Your task to perform on an android device: move a message to another label in the gmail app Image 0: 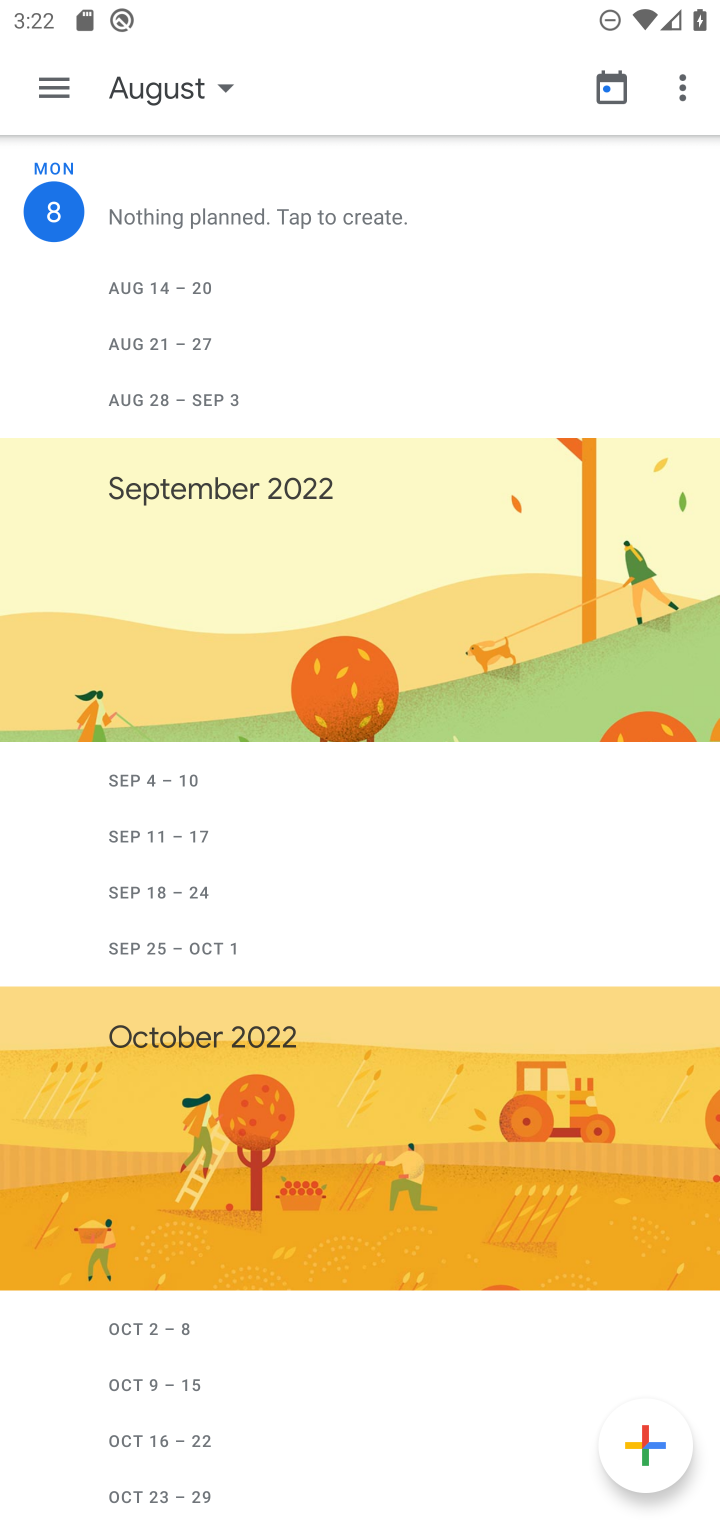
Step 0: press home button
Your task to perform on an android device: move a message to another label in the gmail app Image 1: 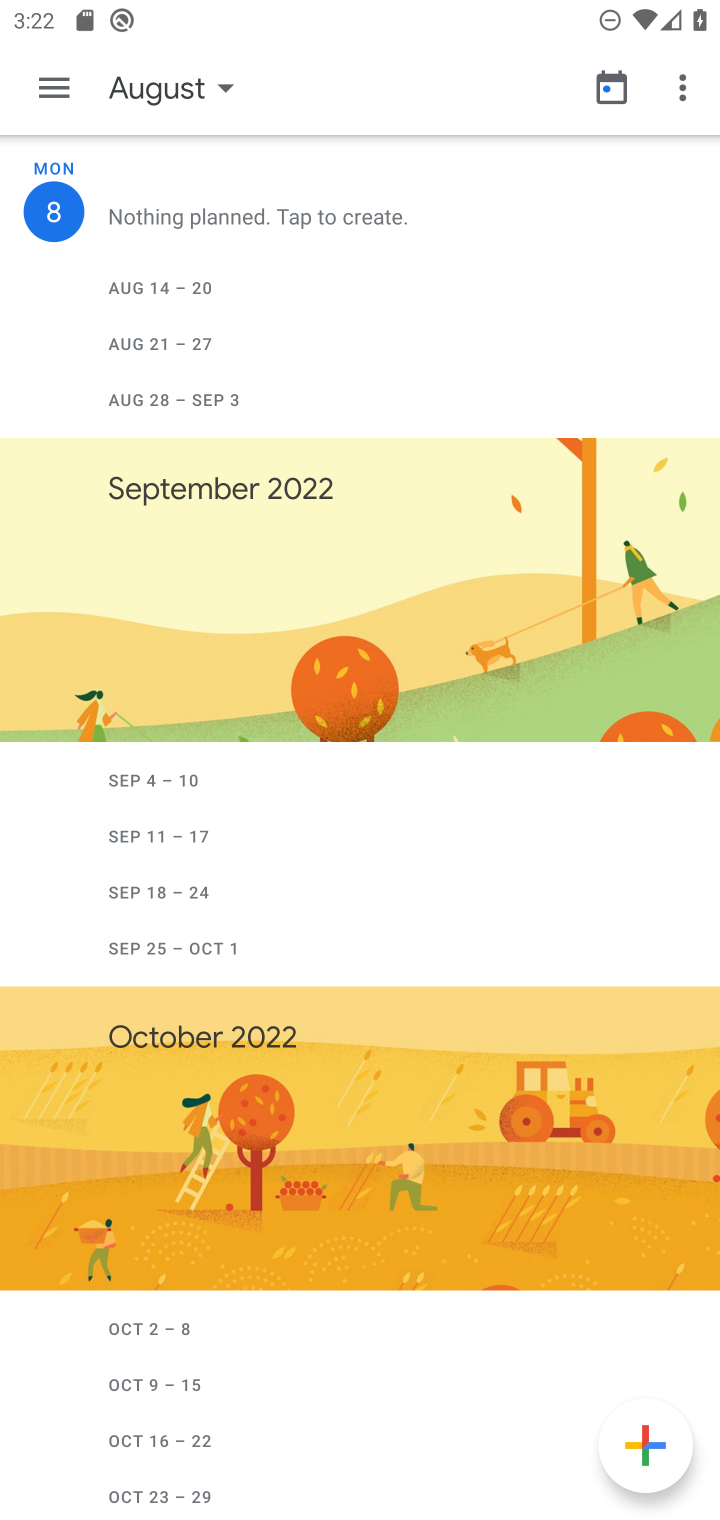
Step 1: press home button
Your task to perform on an android device: move a message to another label in the gmail app Image 2: 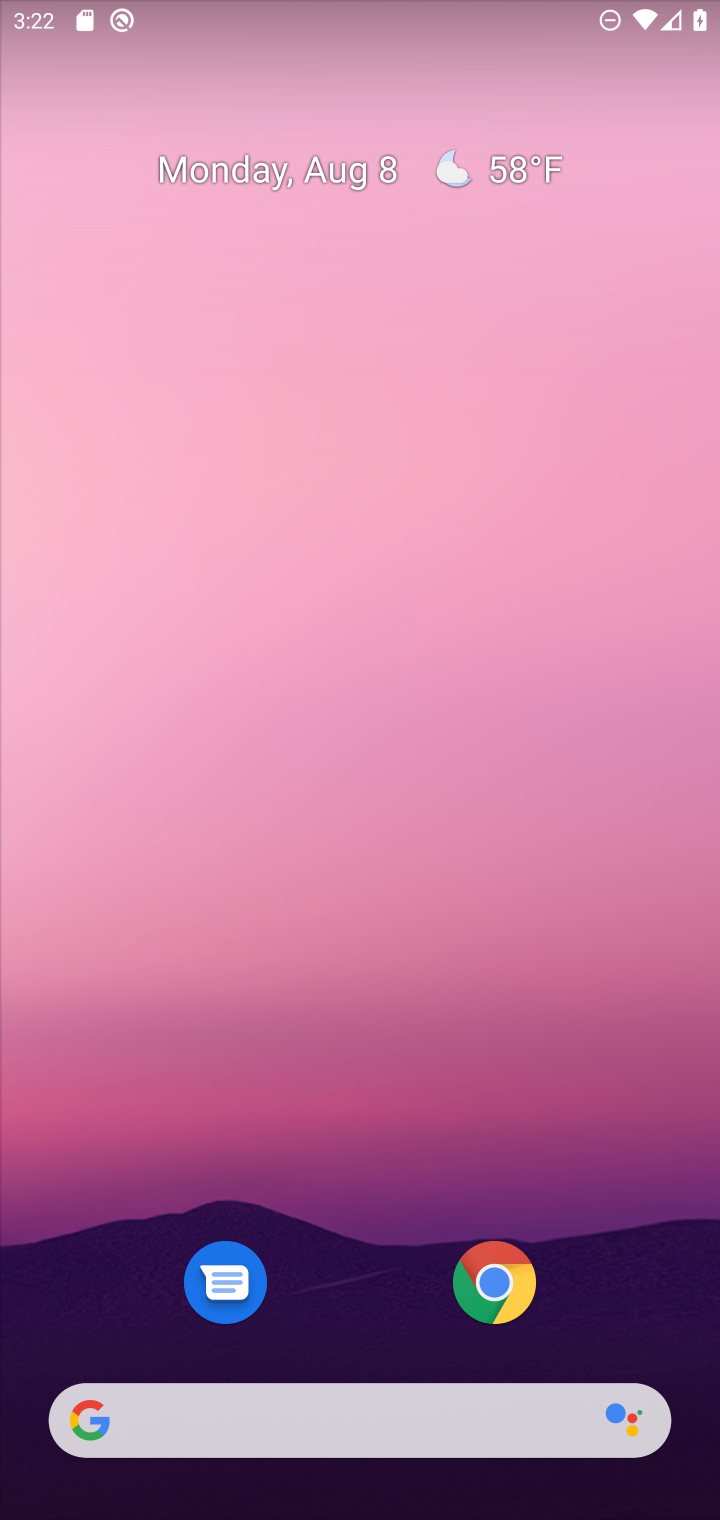
Step 2: drag from (397, 1054) to (570, 468)
Your task to perform on an android device: move a message to another label in the gmail app Image 3: 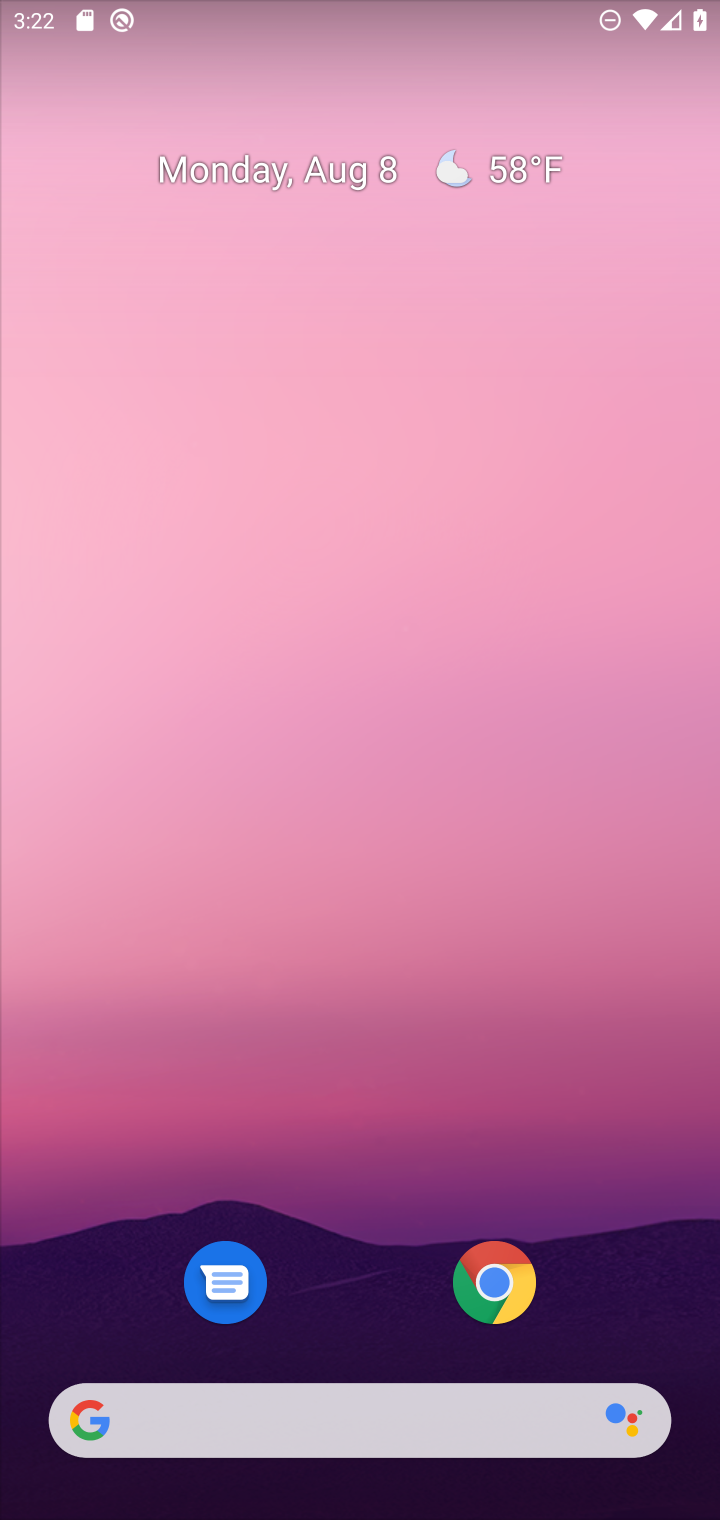
Step 3: drag from (372, 1242) to (515, 245)
Your task to perform on an android device: move a message to another label in the gmail app Image 4: 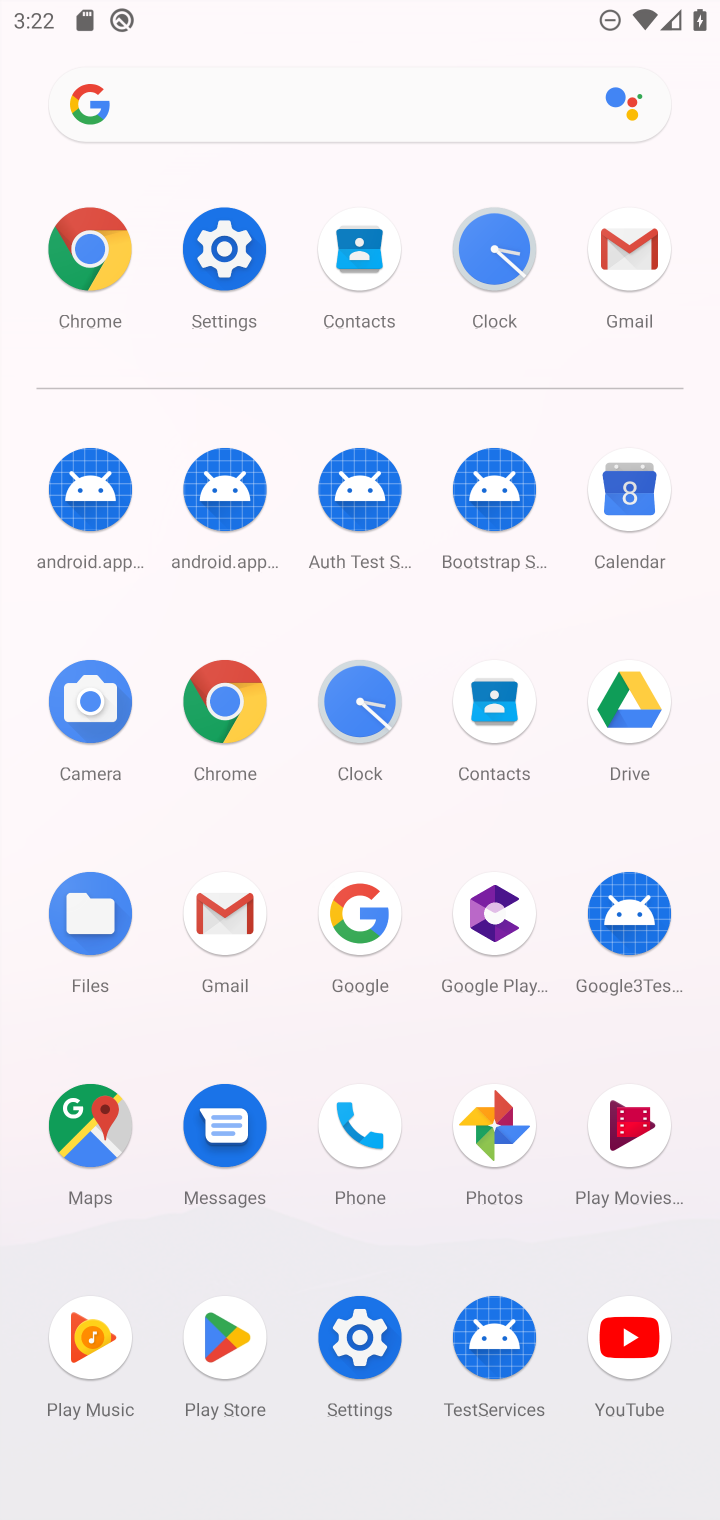
Step 4: click (231, 895)
Your task to perform on an android device: move a message to another label in the gmail app Image 5: 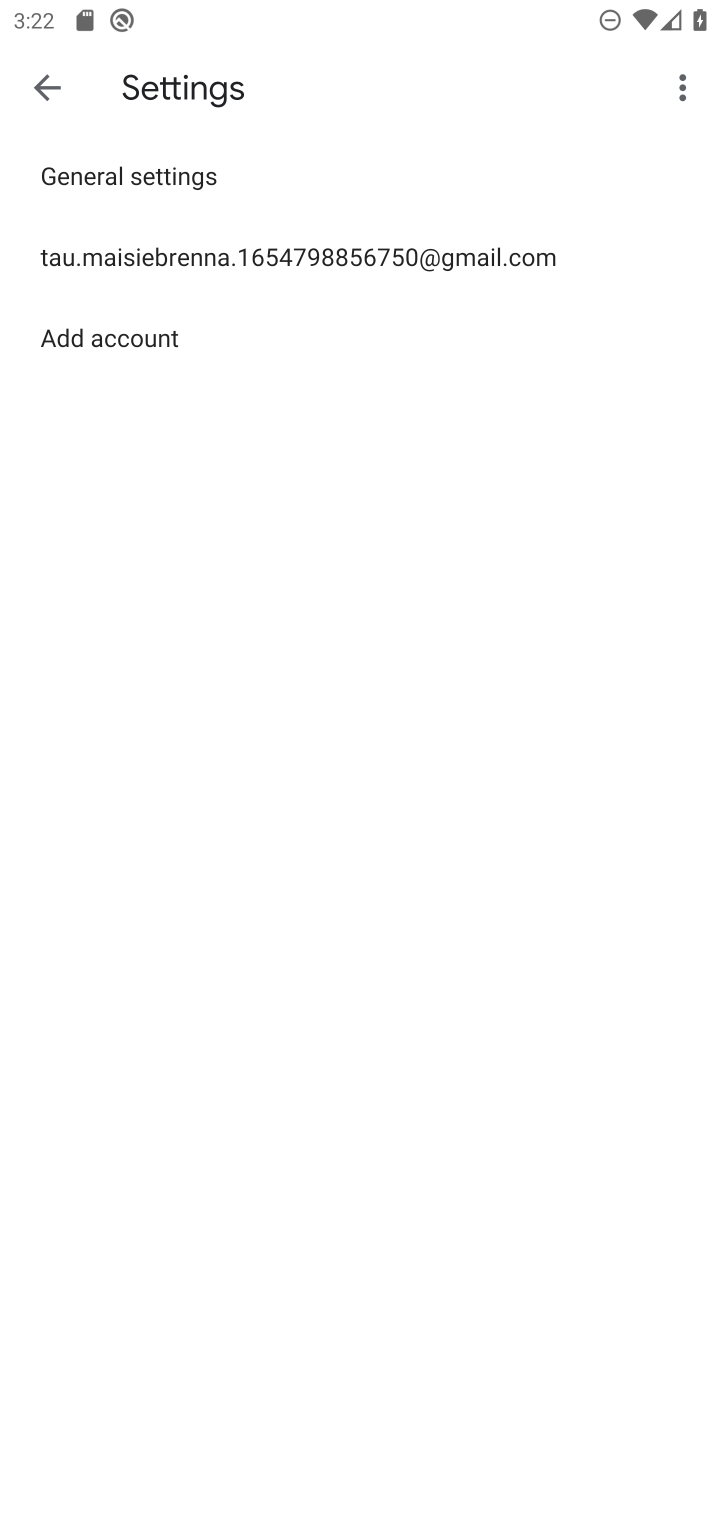
Step 5: click (54, 86)
Your task to perform on an android device: move a message to another label in the gmail app Image 6: 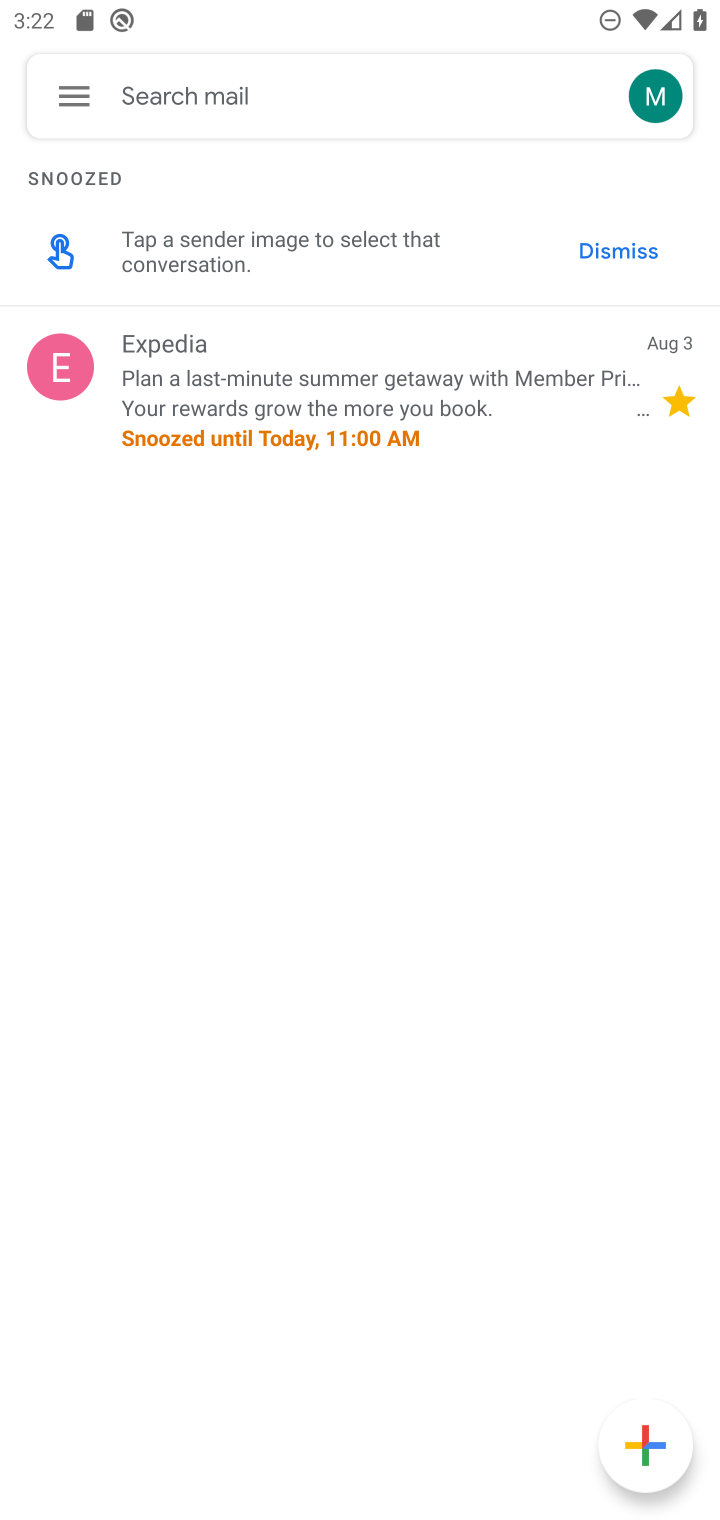
Step 6: click (61, 78)
Your task to perform on an android device: move a message to another label in the gmail app Image 7: 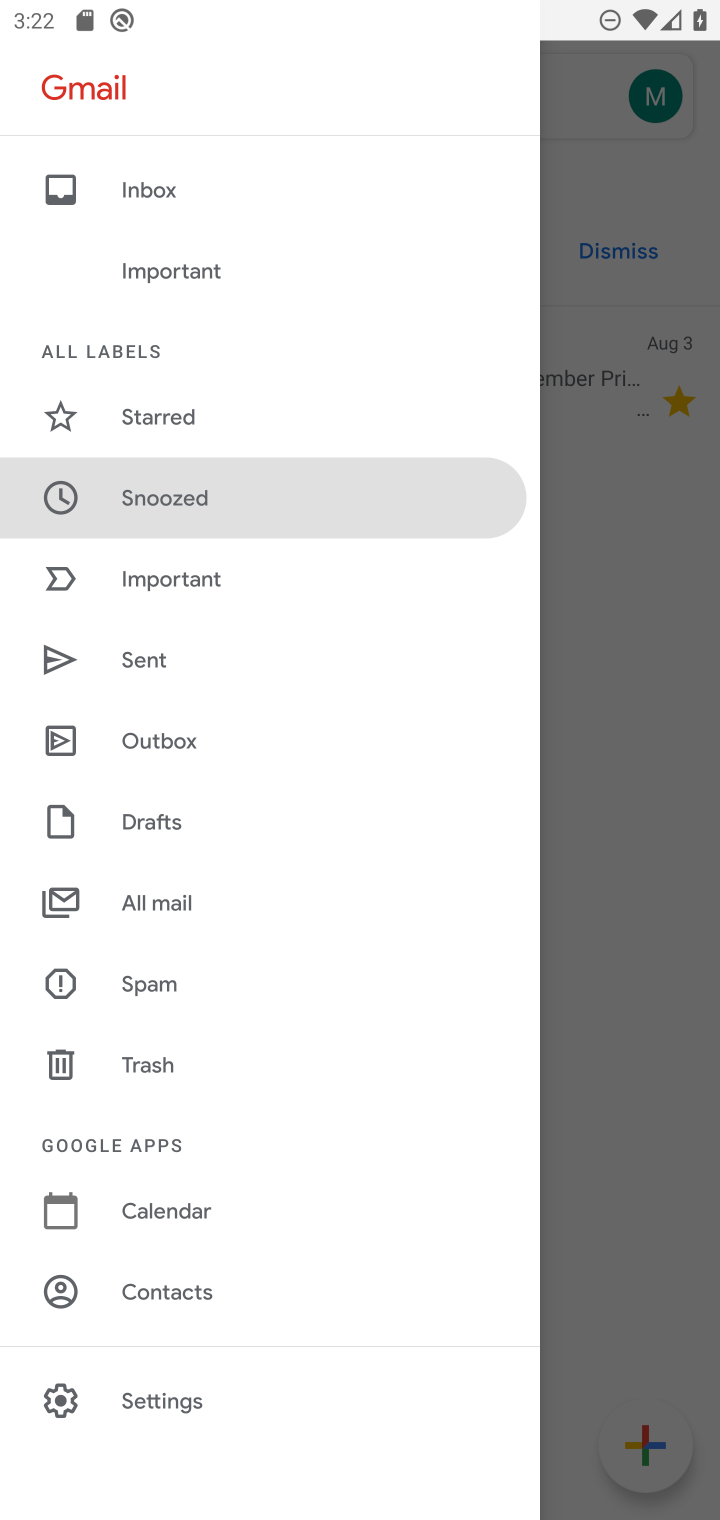
Step 7: click (158, 906)
Your task to perform on an android device: move a message to another label in the gmail app Image 8: 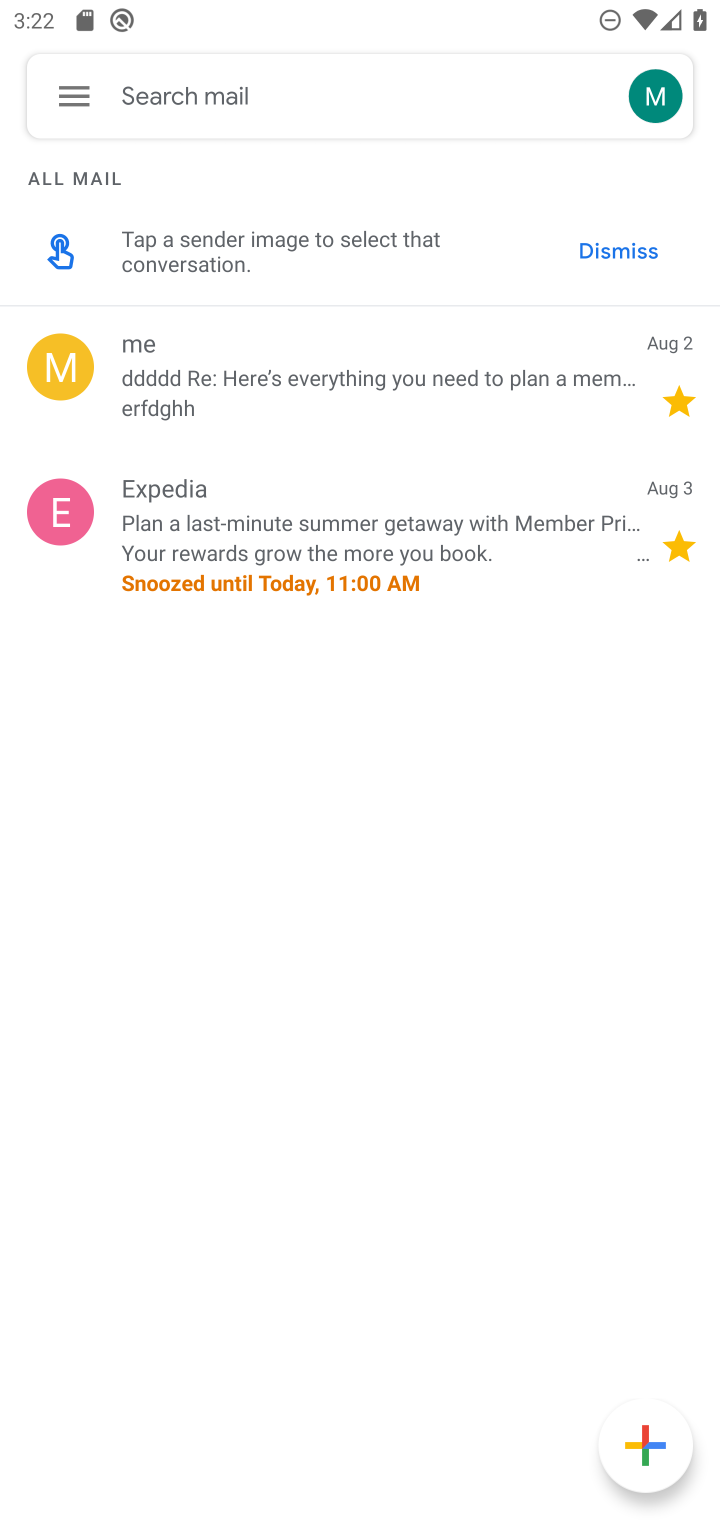
Step 8: click (393, 388)
Your task to perform on an android device: move a message to another label in the gmail app Image 9: 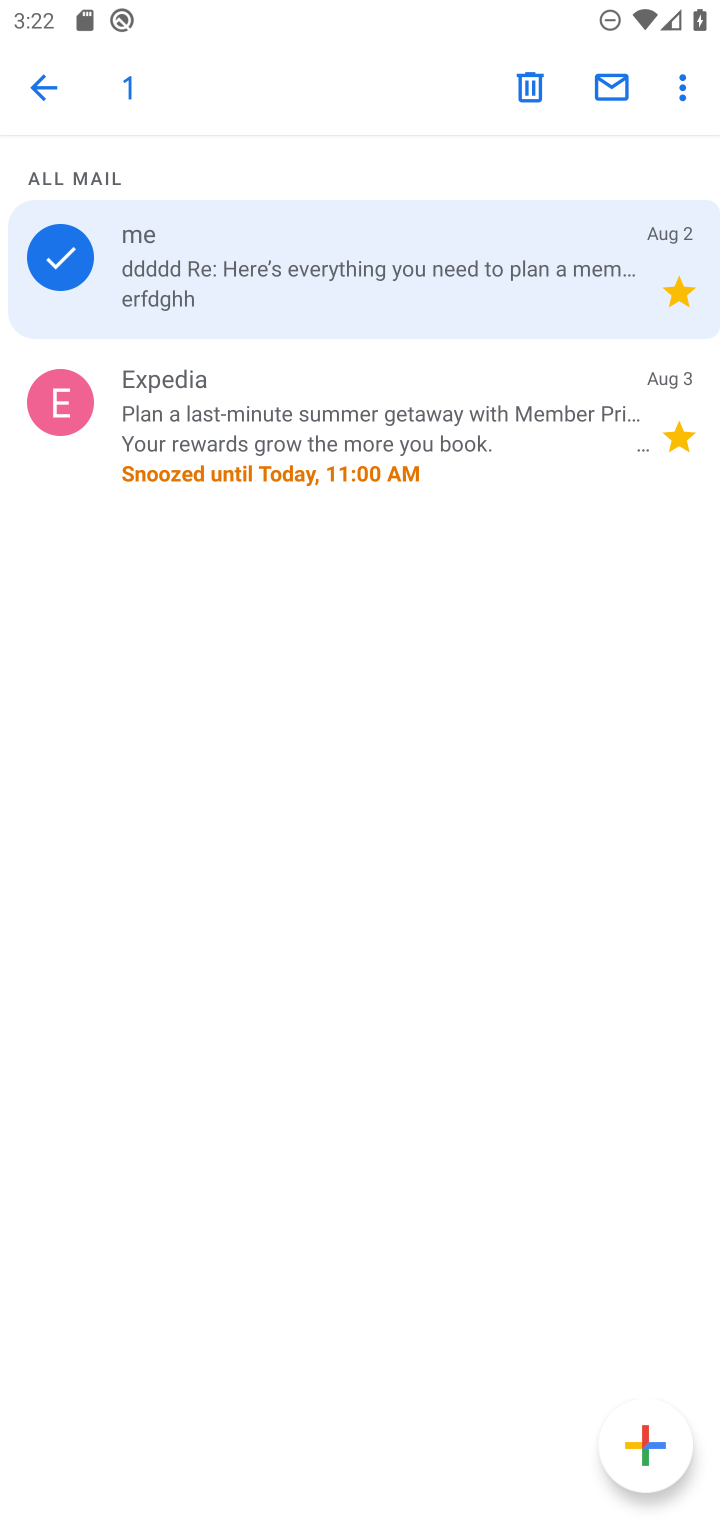
Step 9: click (682, 75)
Your task to perform on an android device: move a message to another label in the gmail app Image 10: 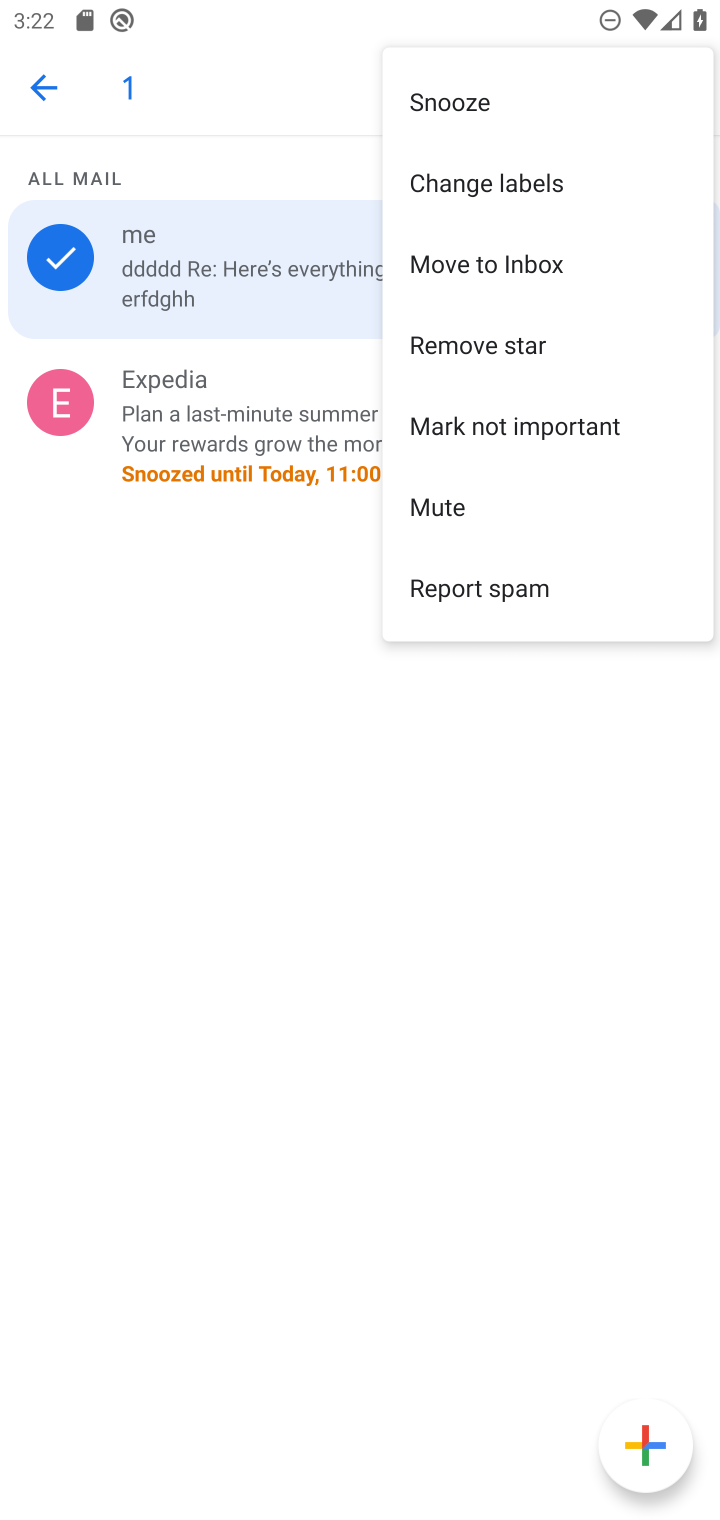
Step 10: click (538, 174)
Your task to perform on an android device: move a message to another label in the gmail app Image 11: 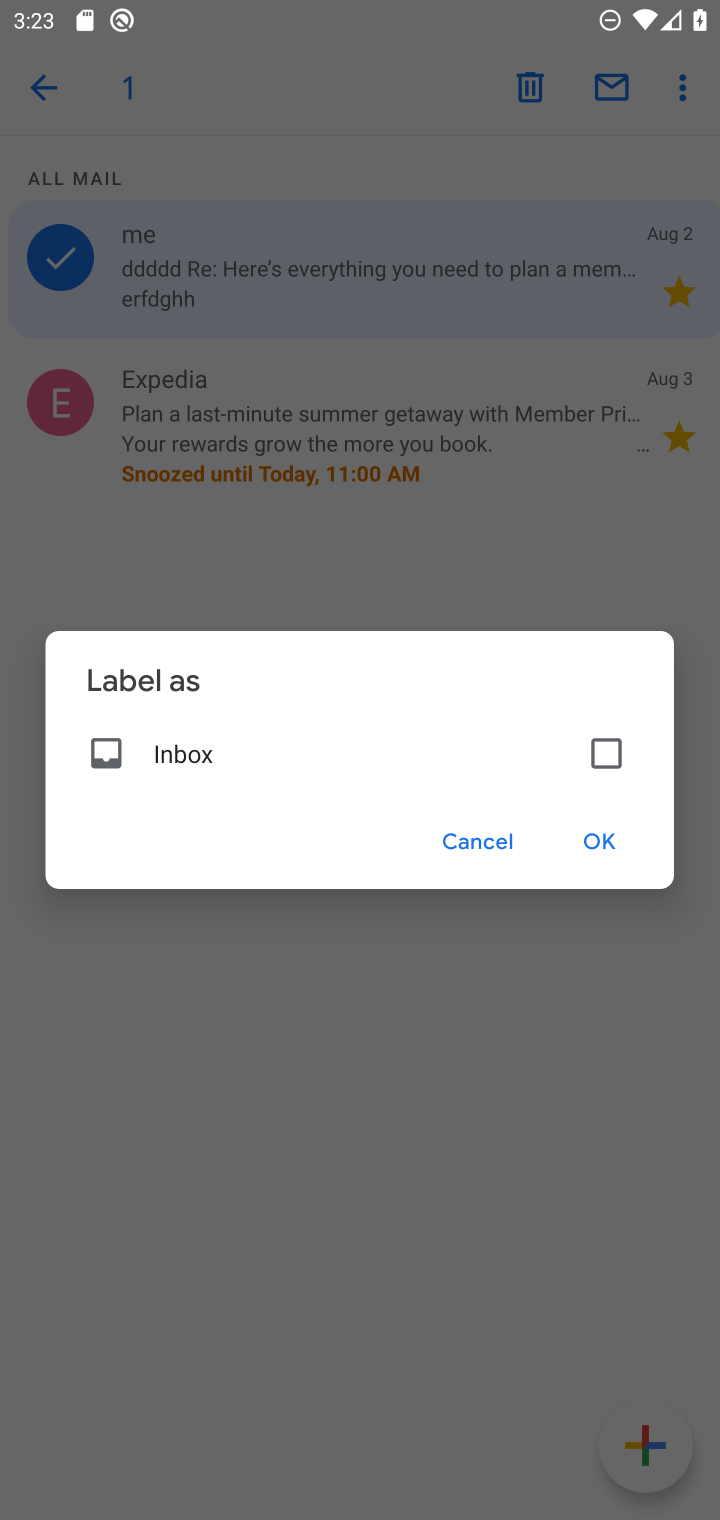
Step 11: click (592, 726)
Your task to perform on an android device: move a message to another label in the gmail app Image 12: 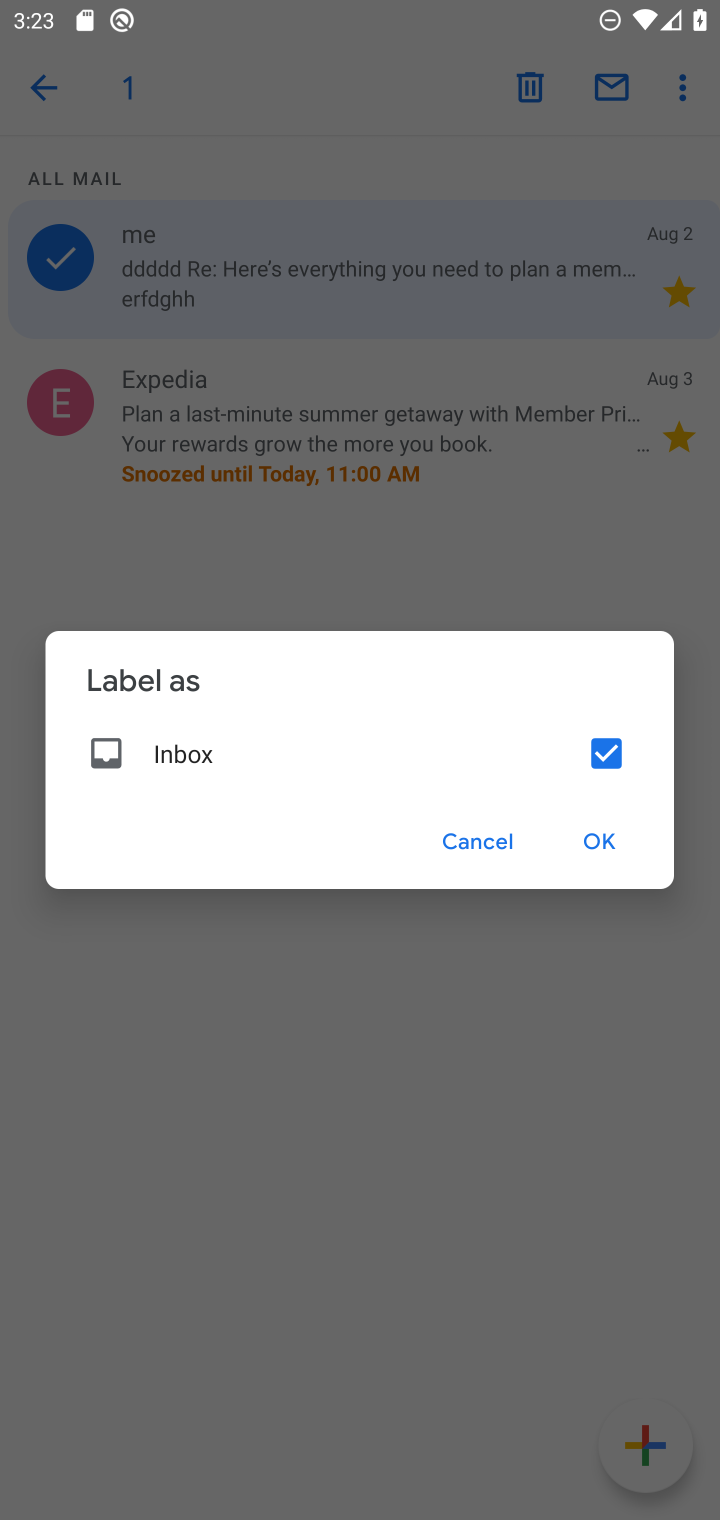
Step 12: click (609, 749)
Your task to perform on an android device: move a message to another label in the gmail app Image 13: 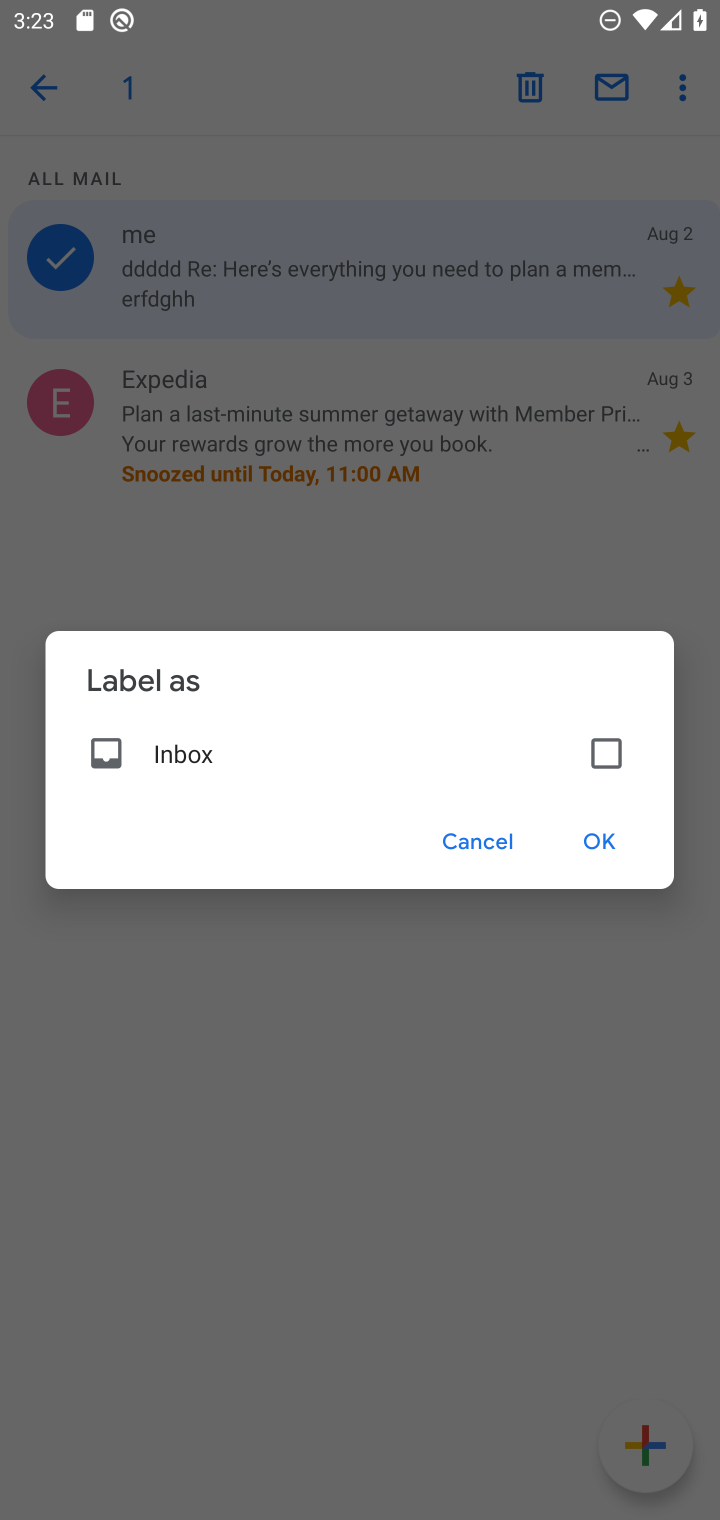
Step 13: click (603, 741)
Your task to perform on an android device: move a message to another label in the gmail app Image 14: 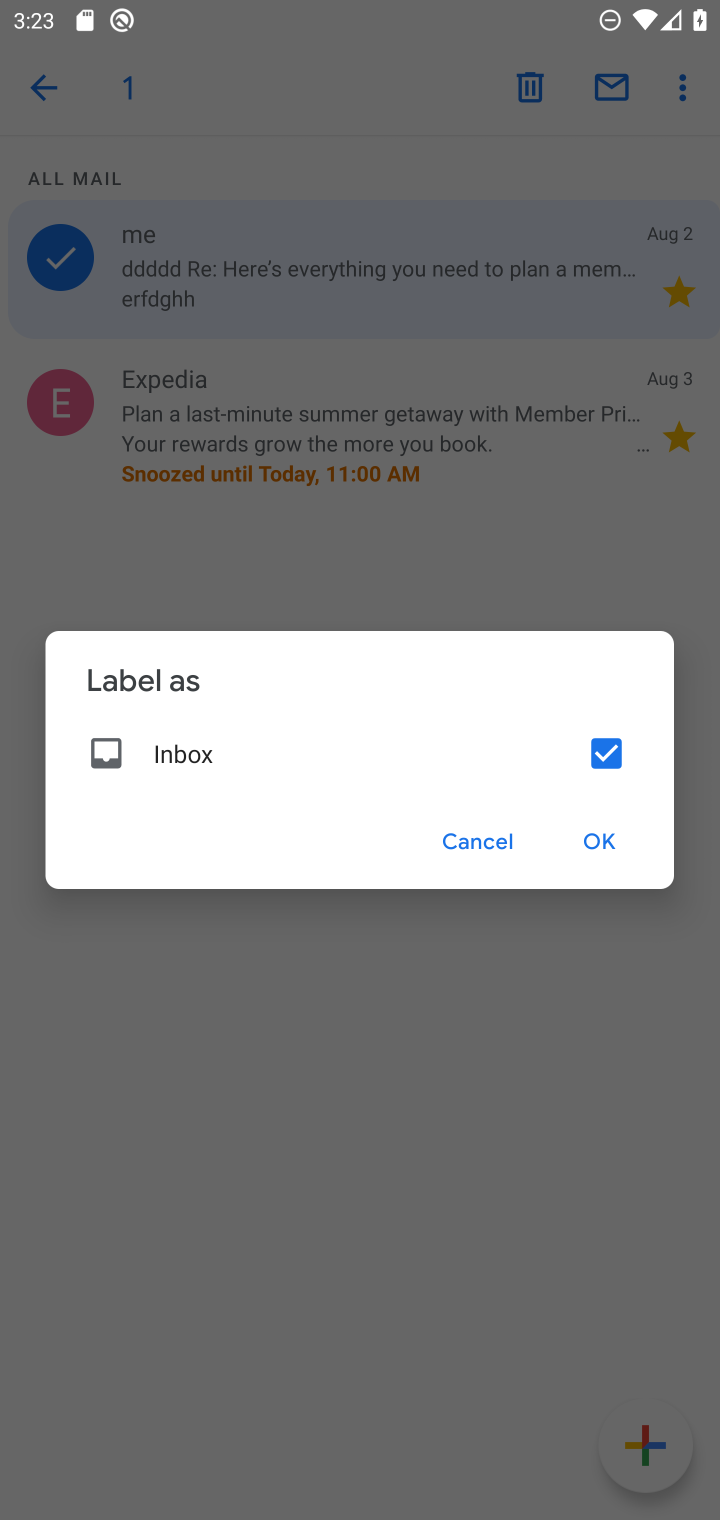
Step 14: click (605, 831)
Your task to perform on an android device: move a message to another label in the gmail app Image 15: 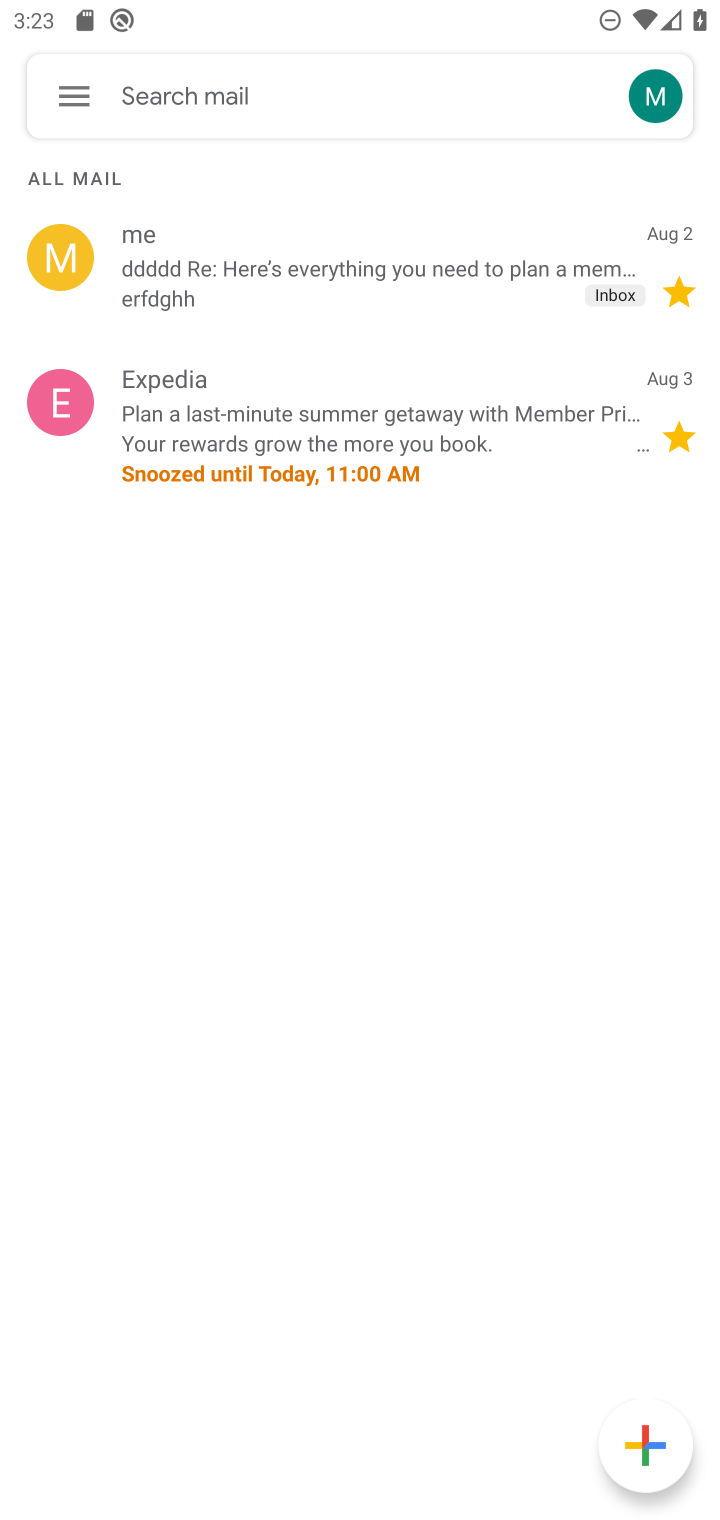
Step 15: task complete